Your task to perform on an android device: turn off airplane mode Image 0: 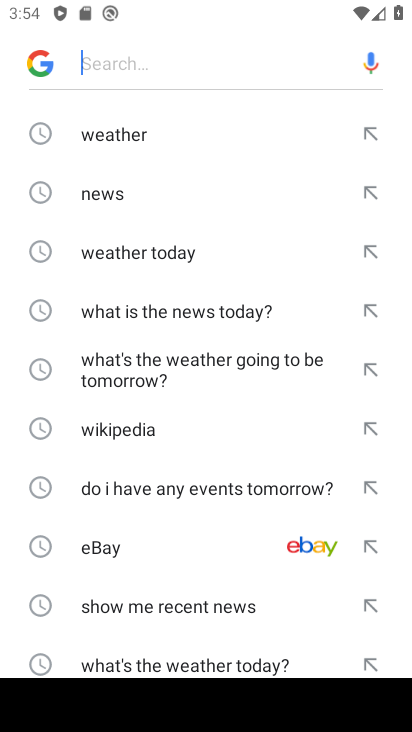
Step 0: press home button
Your task to perform on an android device: turn off airplane mode Image 1: 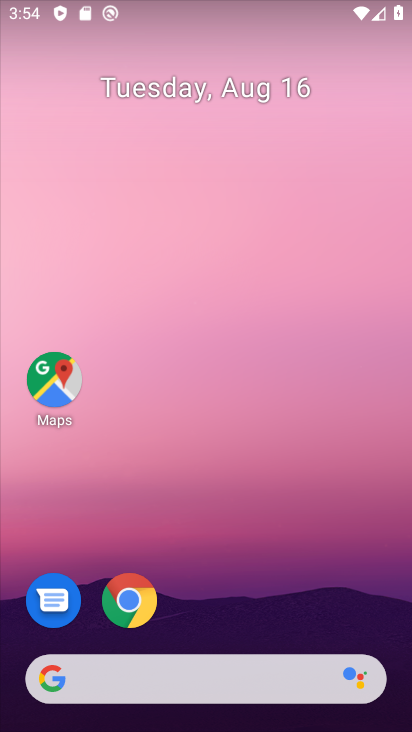
Step 1: drag from (203, 625) to (252, 203)
Your task to perform on an android device: turn off airplane mode Image 2: 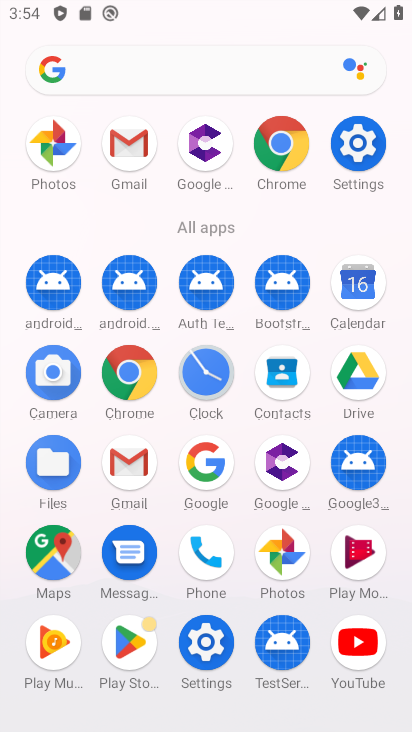
Step 2: click (215, 644)
Your task to perform on an android device: turn off airplane mode Image 3: 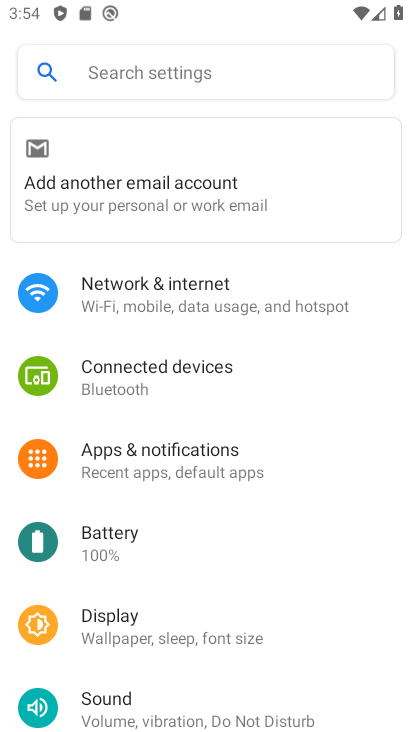
Step 3: click (173, 314)
Your task to perform on an android device: turn off airplane mode Image 4: 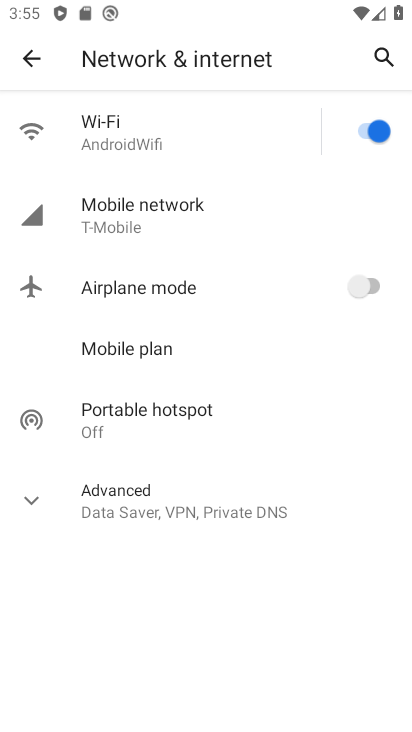
Step 4: task complete